Your task to perform on an android device: Search for a 36" x 48" whiteboard on Home Depot Image 0: 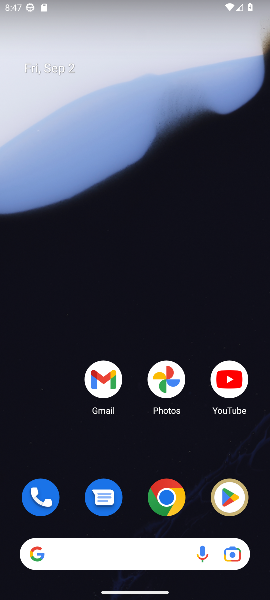
Step 0: click (90, 291)
Your task to perform on an android device: Search for a 36" x 48" whiteboard on Home Depot Image 1: 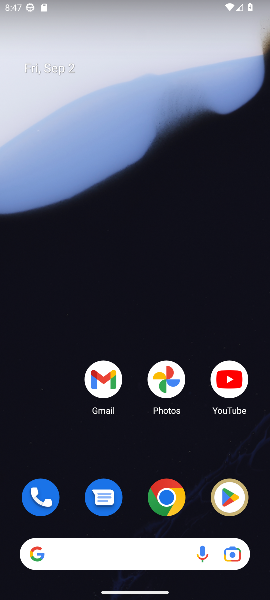
Step 1: drag from (132, 515) to (90, 22)
Your task to perform on an android device: Search for a 36" x 48" whiteboard on Home Depot Image 2: 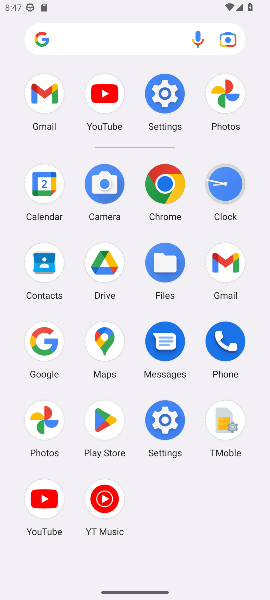
Step 2: click (42, 354)
Your task to perform on an android device: Search for a 36" x 48" whiteboard on Home Depot Image 3: 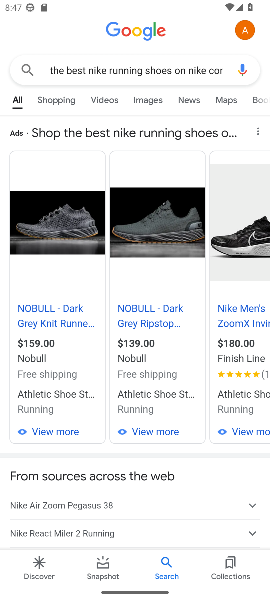
Step 3: click (168, 70)
Your task to perform on an android device: Search for a 36" x 48" whiteboard on Home Depot Image 4: 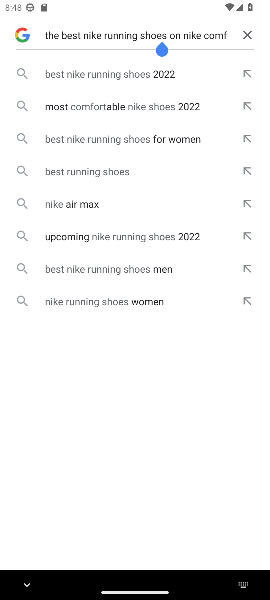
Step 4: click (247, 34)
Your task to perform on an android device: Search for a 36" x 48" whiteboard on Home Depot Image 5: 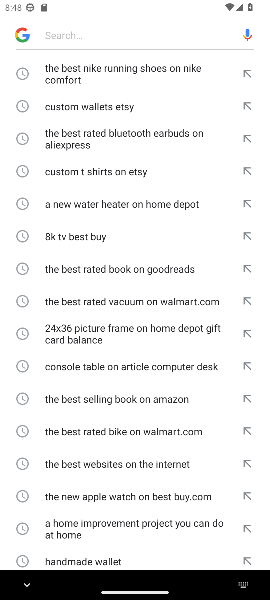
Step 5: type " 36" x 48" whiteboard on Home Depot"
Your task to perform on an android device: Search for a 36" x 48" whiteboard on Home Depot Image 6: 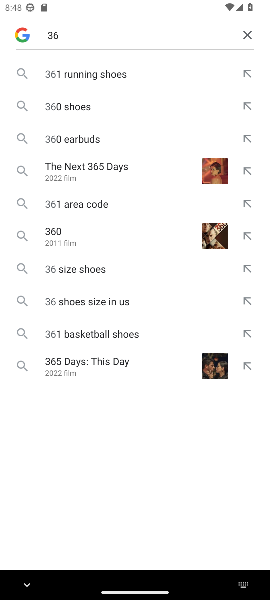
Step 6: click (245, 33)
Your task to perform on an android device: Search for a 36" x 48" whiteboard on Home Depot Image 7: 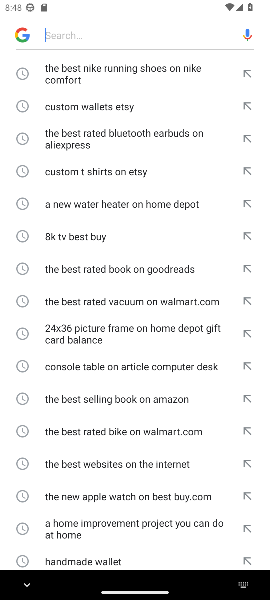
Step 7: type "a 36" x 48" whiteboard on Home Depot"
Your task to perform on an android device: Search for a 36" x 48" whiteboard on Home Depot Image 8: 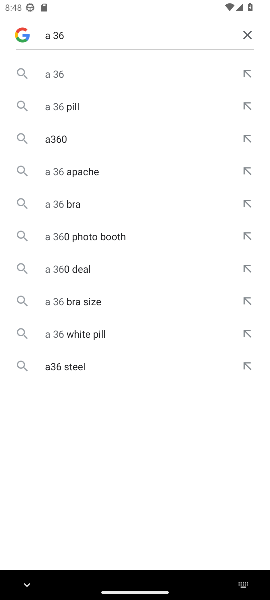
Step 8: click (249, 36)
Your task to perform on an android device: Search for a 36" x 48" whiteboard on Home Depot Image 9: 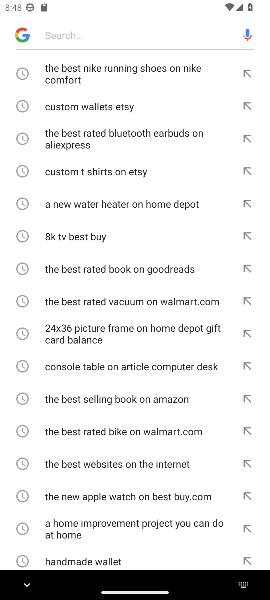
Step 9: type " a 36" x 48" whiteboard on Home Depot"
Your task to perform on an android device: Search for a 36" x 48" whiteboard on Home Depot Image 10: 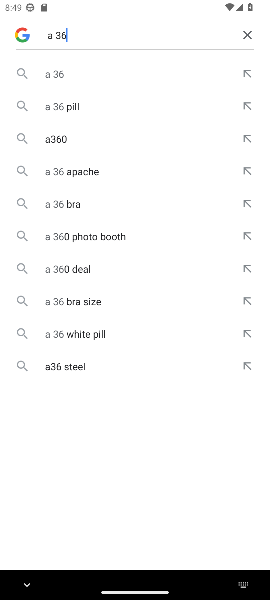
Step 10: click (242, 33)
Your task to perform on an android device: Search for a 36" x 48" whiteboard on Home Depot Image 11: 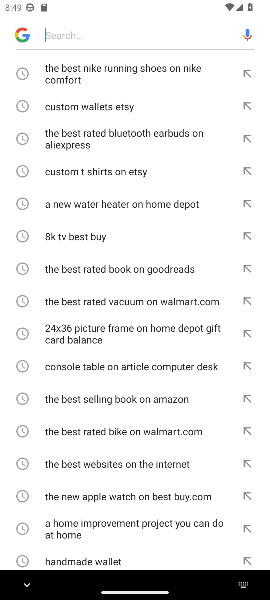
Step 11: type "whiteboard on Home Depot"
Your task to perform on an android device: Search for a 36" x 48" whiteboard on Home Depot Image 12: 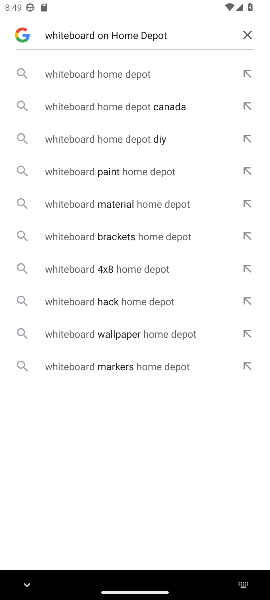
Step 12: type ""
Your task to perform on an android device: Search for a 36" x 48" whiteboard on Home Depot Image 13: 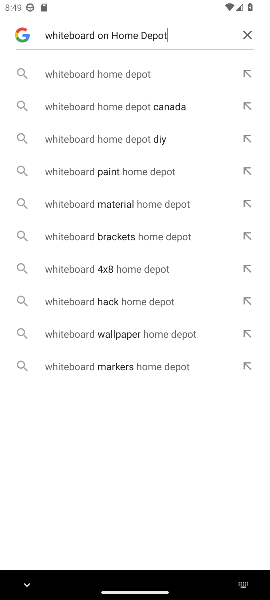
Step 13: click (100, 78)
Your task to perform on an android device: Search for a 36" x 48" whiteboard on Home Depot Image 14: 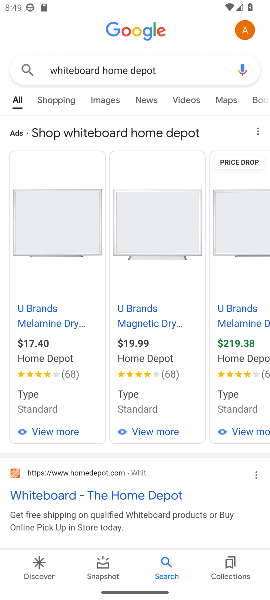
Step 14: task complete